Your task to perform on an android device: set default search engine in the chrome app Image 0: 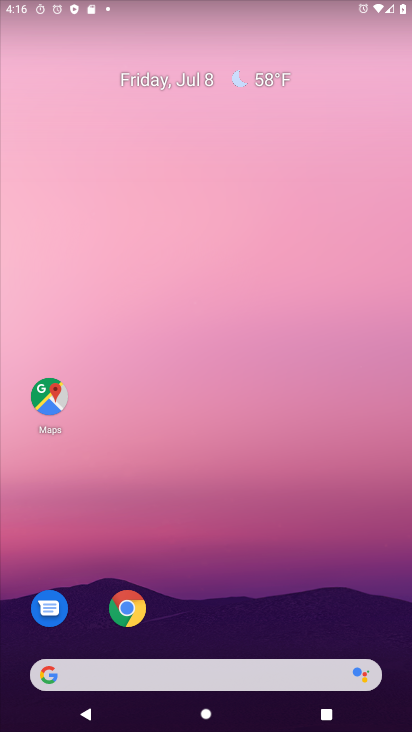
Step 0: click (130, 605)
Your task to perform on an android device: set default search engine in the chrome app Image 1: 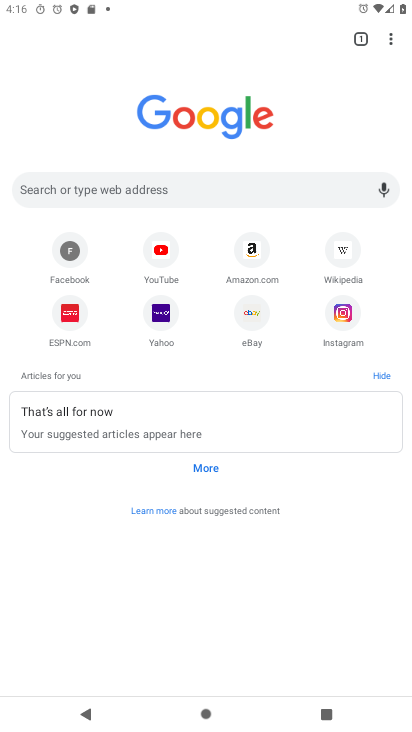
Step 1: click (394, 53)
Your task to perform on an android device: set default search engine in the chrome app Image 2: 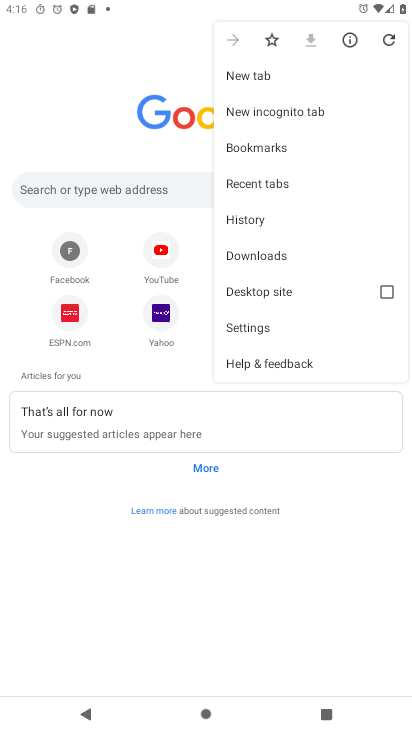
Step 2: click (249, 324)
Your task to perform on an android device: set default search engine in the chrome app Image 3: 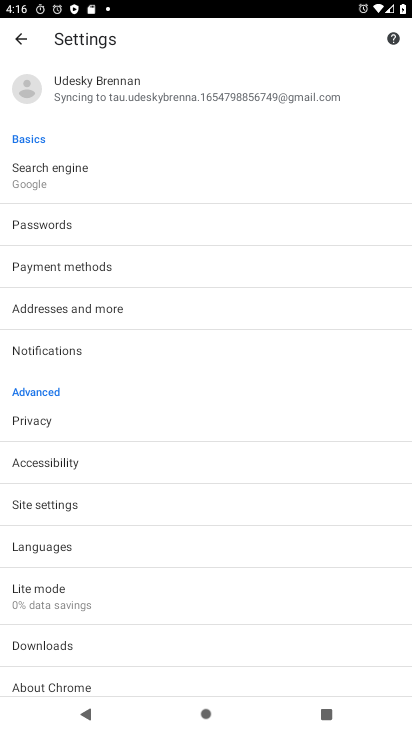
Step 3: click (18, 183)
Your task to perform on an android device: set default search engine in the chrome app Image 4: 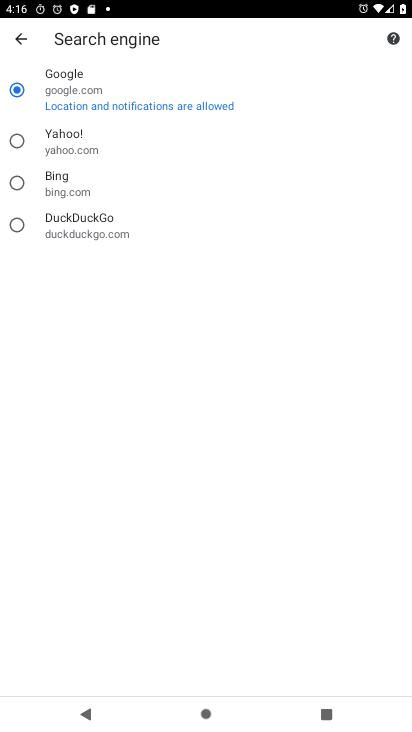
Step 4: click (84, 142)
Your task to perform on an android device: set default search engine in the chrome app Image 5: 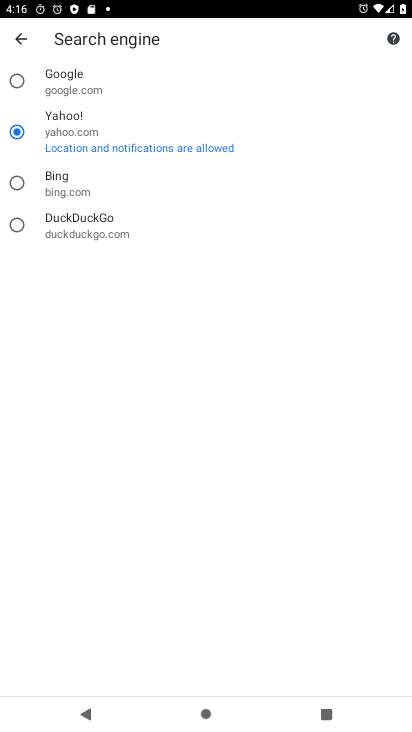
Step 5: task complete